Your task to perform on an android device: open app "Spotify: Music and Podcasts" (install if not already installed), go to login, and select forgot password Image 0: 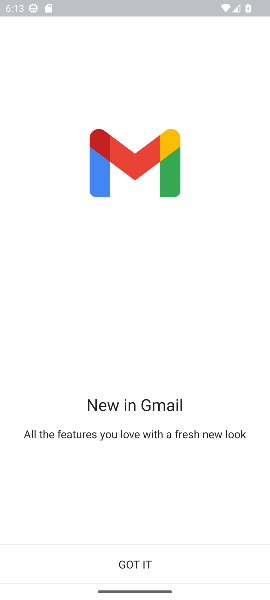
Step 0: press home button
Your task to perform on an android device: open app "Spotify: Music and Podcasts" (install if not already installed), go to login, and select forgot password Image 1: 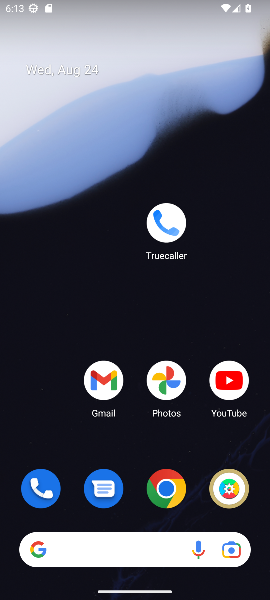
Step 1: drag from (129, 360) to (124, 155)
Your task to perform on an android device: open app "Spotify: Music and Podcasts" (install if not already installed), go to login, and select forgot password Image 2: 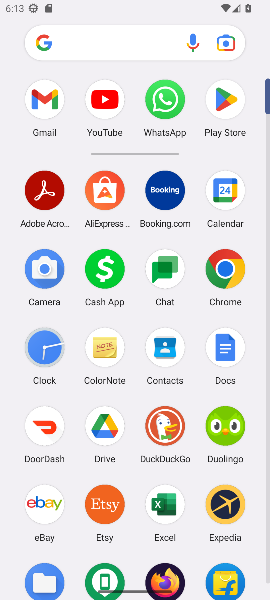
Step 2: click (211, 119)
Your task to perform on an android device: open app "Spotify: Music and Podcasts" (install if not already installed), go to login, and select forgot password Image 3: 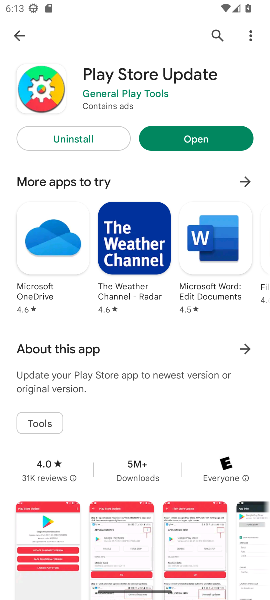
Step 3: click (210, 45)
Your task to perform on an android device: open app "Spotify: Music and Podcasts" (install if not already installed), go to login, and select forgot password Image 4: 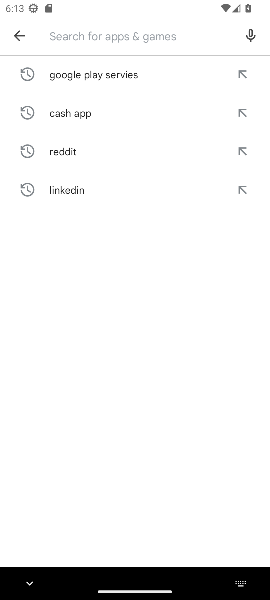
Step 4: type "spotify"
Your task to perform on an android device: open app "Spotify: Music and Podcasts" (install if not already installed), go to login, and select forgot password Image 5: 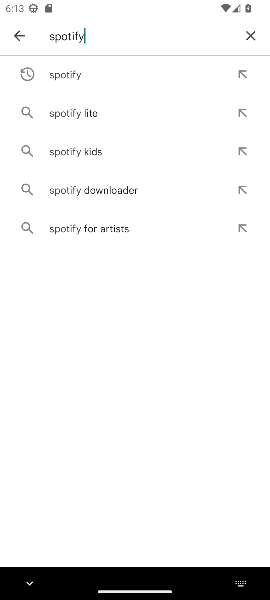
Step 5: click (86, 85)
Your task to perform on an android device: open app "Spotify: Music and Podcasts" (install if not already installed), go to login, and select forgot password Image 6: 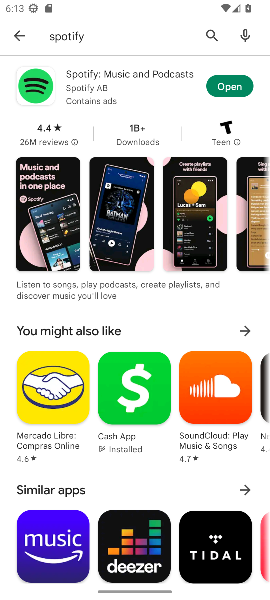
Step 6: click (235, 81)
Your task to perform on an android device: open app "Spotify: Music and Podcasts" (install if not already installed), go to login, and select forgot password Image 7: 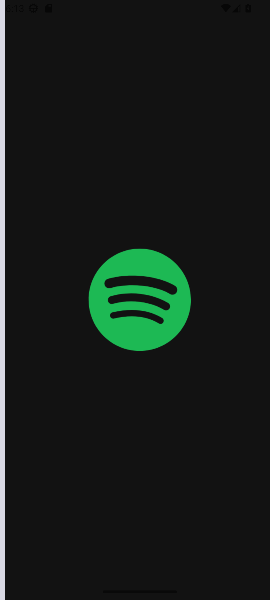
Step 7: task complete